Your task to perform on an android device: allow cookies in the chrome app Image 0: 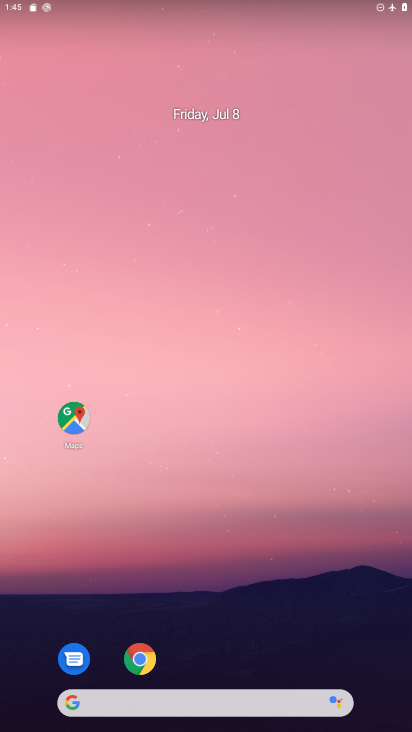
Step 0: click (142, 658)
Your task to perform on an android device: allow cookies in the chrome app Image 1: 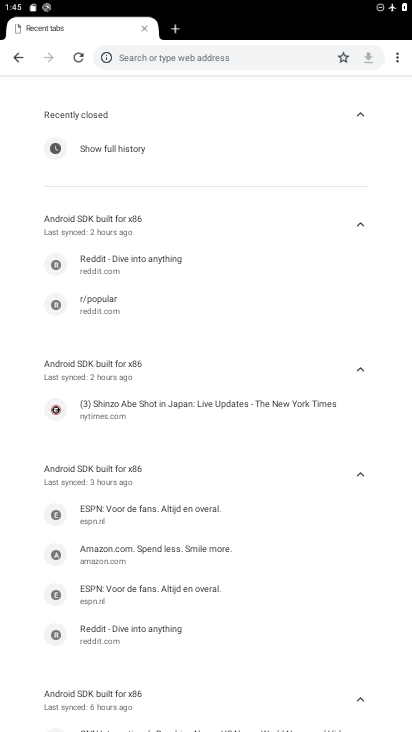
Step 1: click (265, 60)
Your task to perform on an android device: allow cookies in the chrome app Image 2: 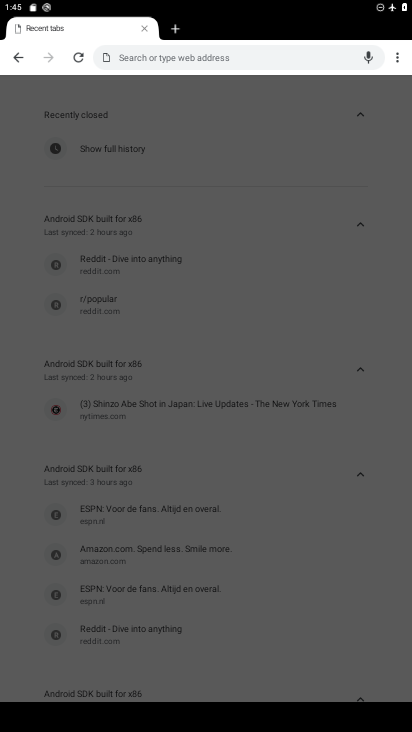
Step 2: click (397, 56)
Your task to perform on an android device: allow cookies in the chrome app Image 3: 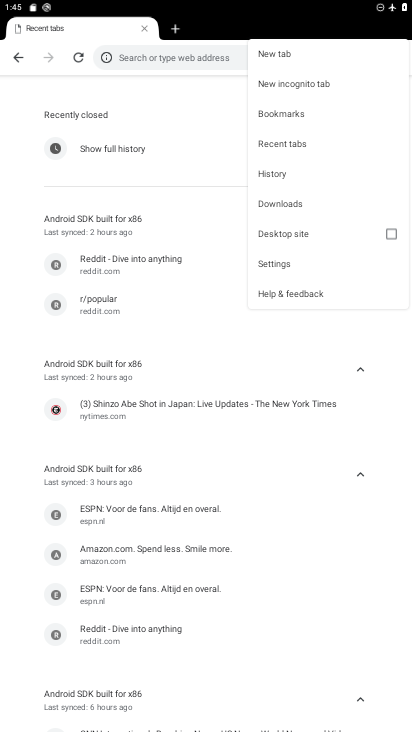
Step 3: click (282, 264)
Your task to perform on an android device: allow cookies in the chrome app Image 4: 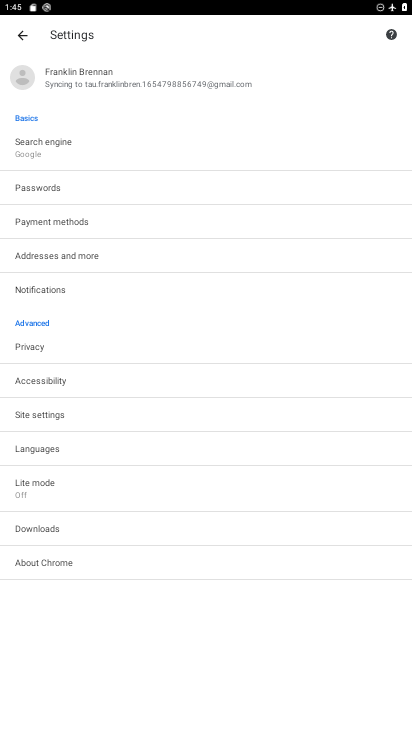
Step 4: click (51, 416)
Your task to perform on an android device: allow cookies in the chrome app Image 5: 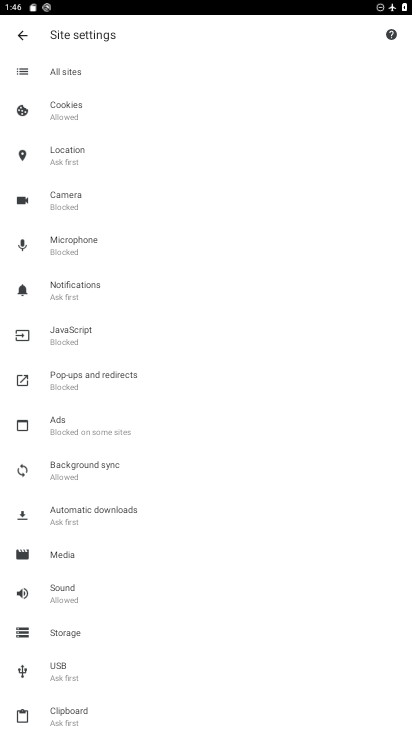
Step 5: click (68, 115)
Your task to perform on an android device: allow cookies in the chrome app Image 6: 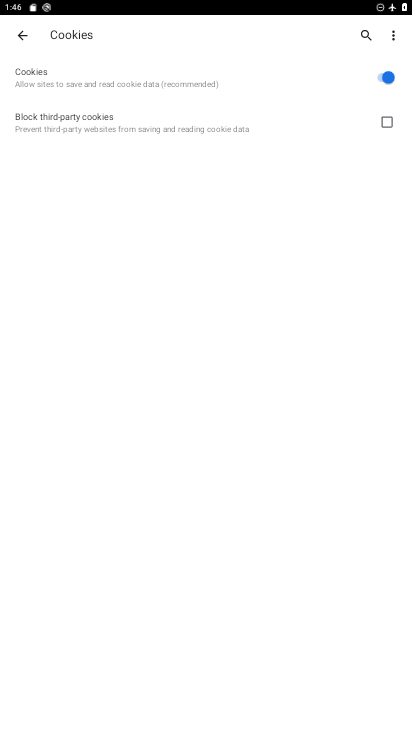
Step 6: click (385, 118)
Your task to perform on an android device: allow cookies in the chrome app Image 7: 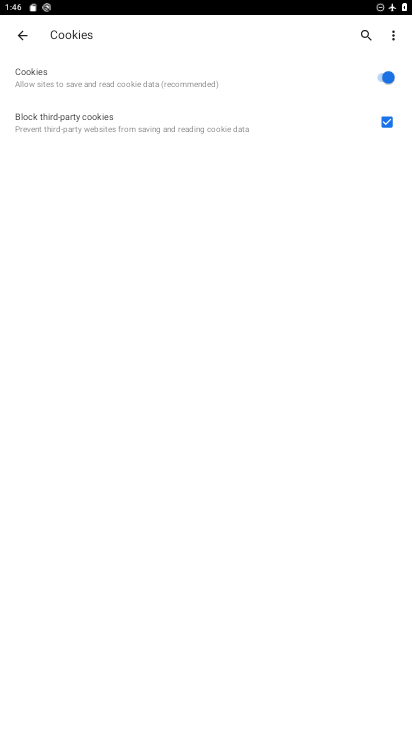
Step 7: task complete